Your task to perform on an android device: Open Reddit.com Image 0: 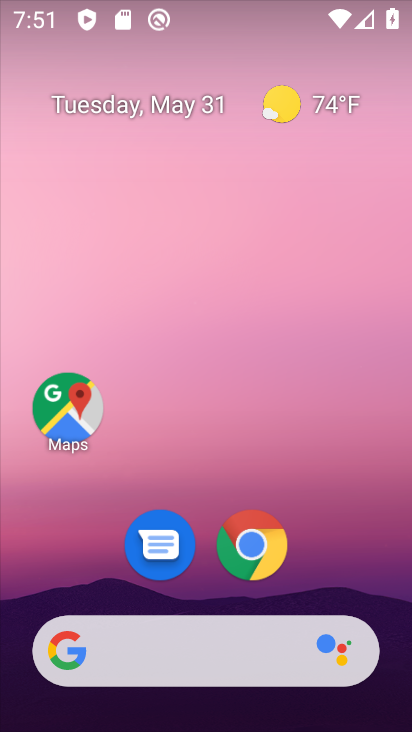
Step 0: drag from (353, 529) to (223, 40)
Your task to perform on an android device: Open Reddit.com Image 1: 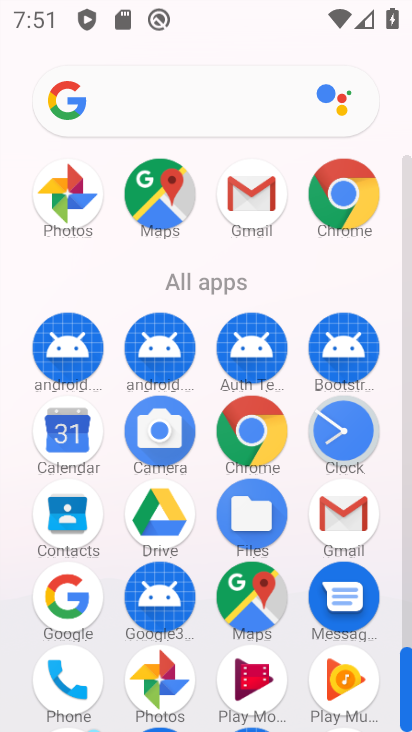
Step 1: drag from (12, 570) to (11, 272)
Your task to perform on an android device: Open Reddit.com Image 2: 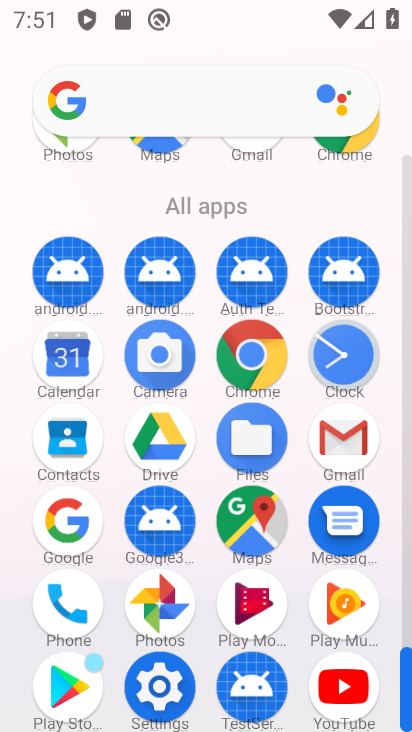
Step 2: click (255, 352)
Your task to perform on an android device: Open Reddit.com Image 3: 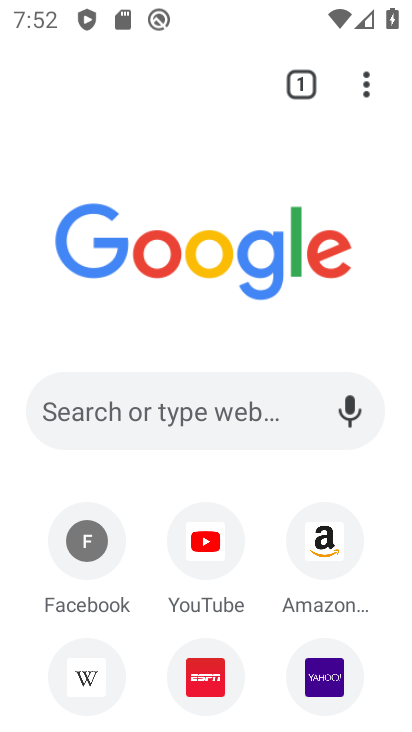
Step 3: click (154, 403)
Your task to perform on an android device: Open Reddit.com Image 4: 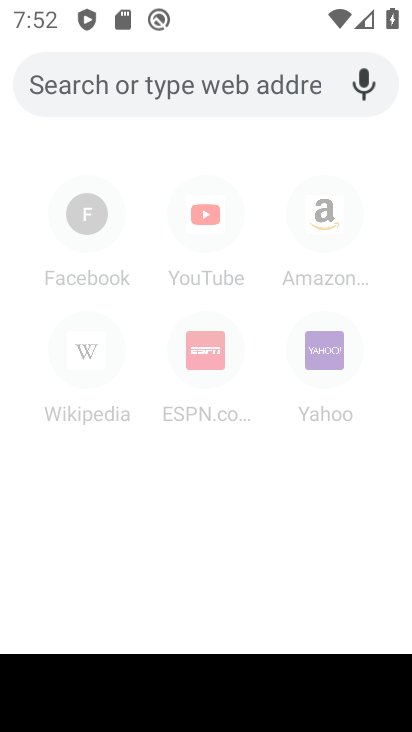
Step 4: type "Reddit.com"
Your task to perform on an android device: Open Reddit.com Image 5: 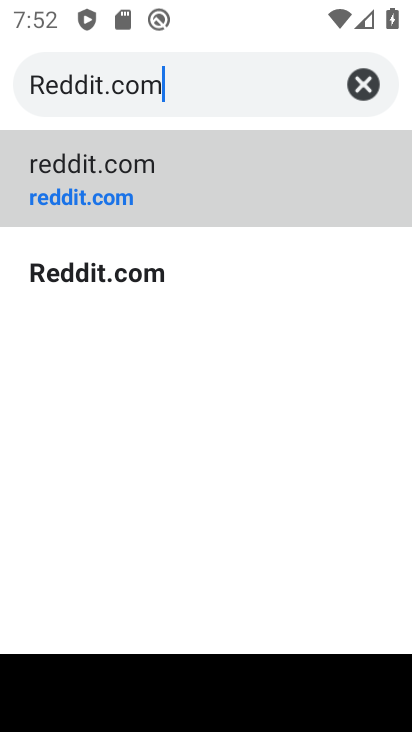
Step 5: type ""
Your task to perform on an android device: Open Reddit.com Image 6: 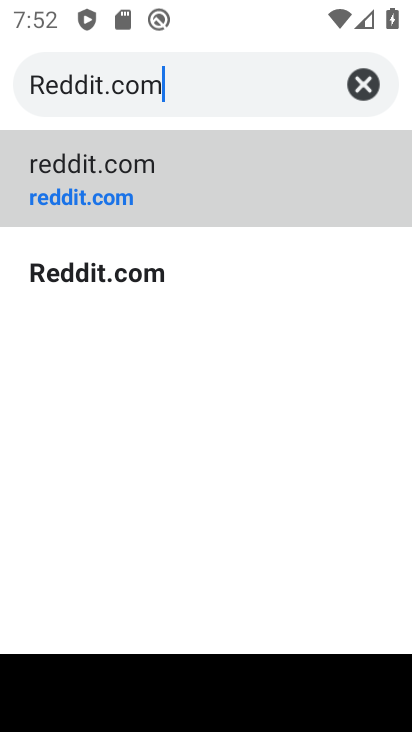
Step 6: click (182, 170)
Your task to perform on an android device: Open Reddit.com Image 7: 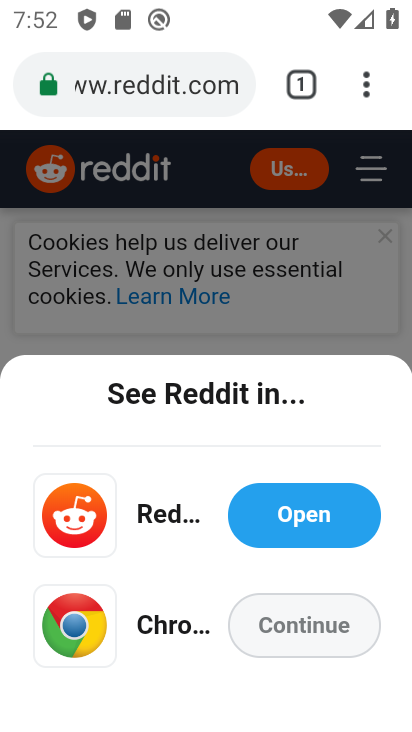
Step 7: task complete